Your task to perform on an android device: turn on the 24-hour format for clock Image 0: 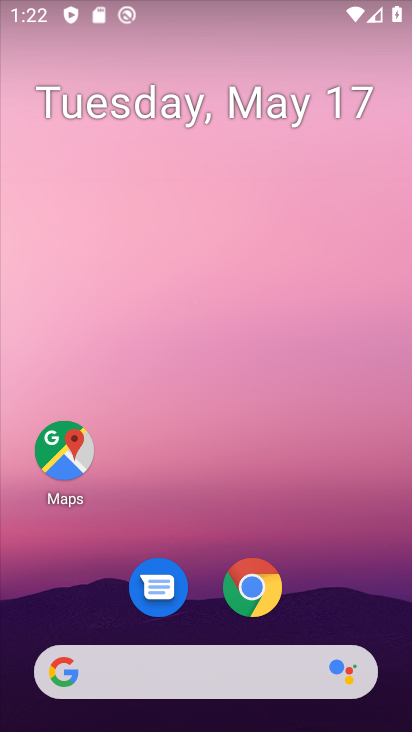
Step 0: drag from (328, 508) to (329, 222)
Your task to perform on an android device: turn on the 24-hour format for clock Image 1: 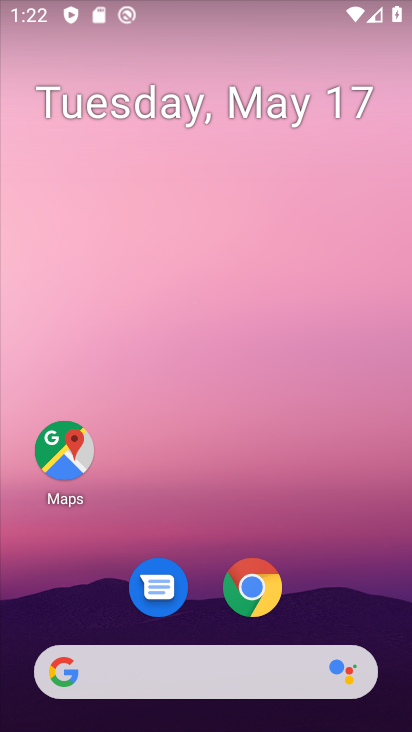
Step 1: drag from (336, 558) to (322, 204)
Your task to perform on an android device: turn on the 24-hour format for clock Image 2: 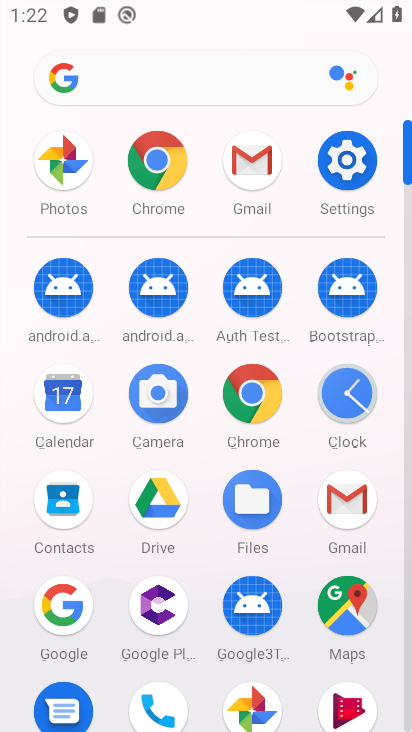
Step 2: click (348, 194)
Your task to perform on an android device: turn on the 24-hour format for clock Image 3: 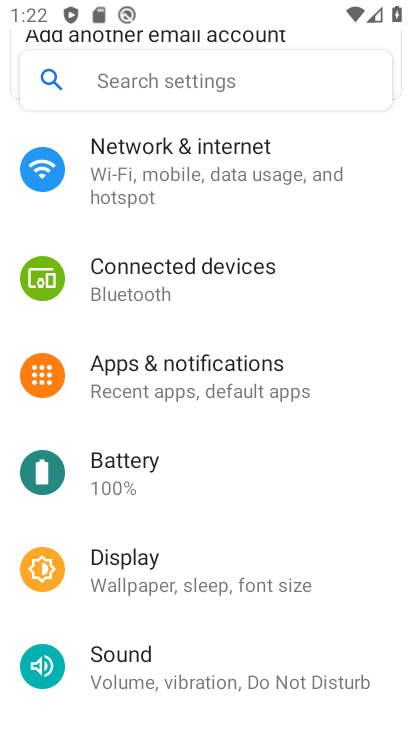
Step 3: press home button
Your task to perform on an android device: turn on the 24-hour format for clock Image 4: 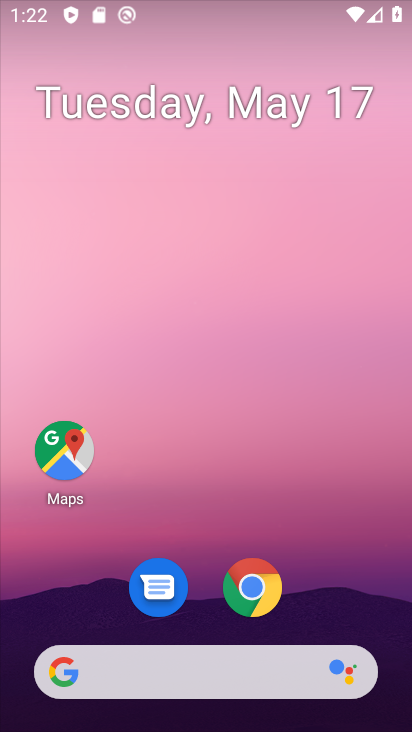
Step 4: drag from (318, 389) to (287, 130)
Your task to perform on an android device: turn on the 24-hour format for clock Image 5: 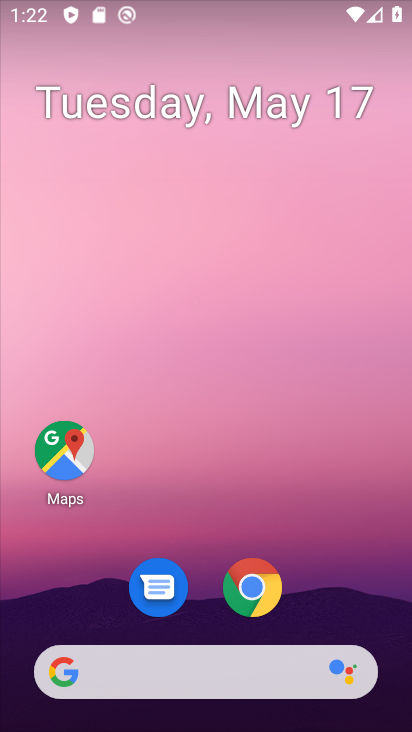
Step 5: drag from (336, 468) to (344, 43)
Your task to perform on an android device: turn on the 24-hour format for clock Image 6: 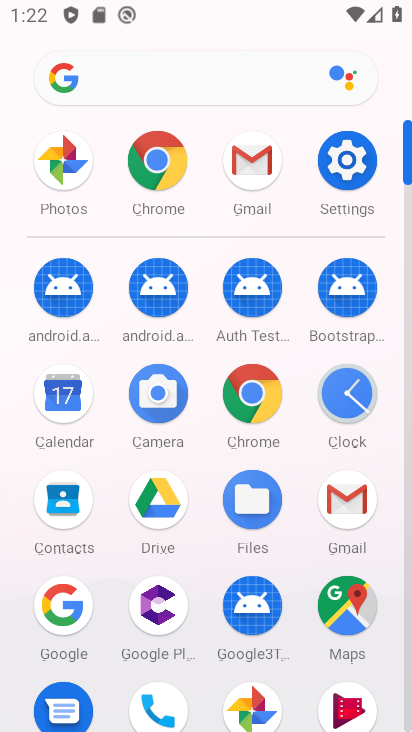
Step 6: click (369, 394)
Your task to perform on an android device: turn on the 24-hour format for clock Image 7: 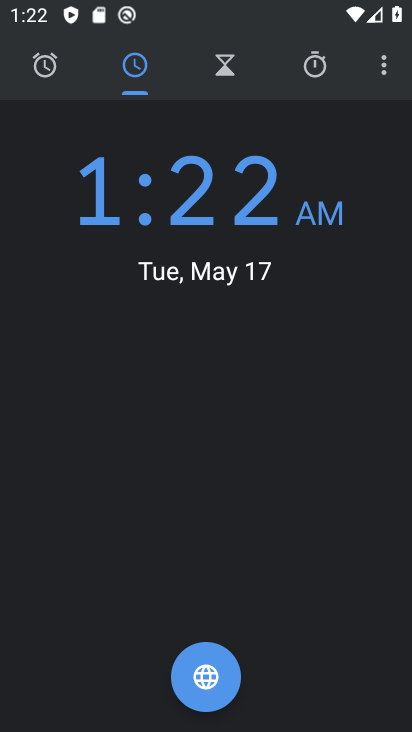
Step 7: click (382, 55)
Your task to perform on an android device: turn on the 24-hour format for clock Image 8: 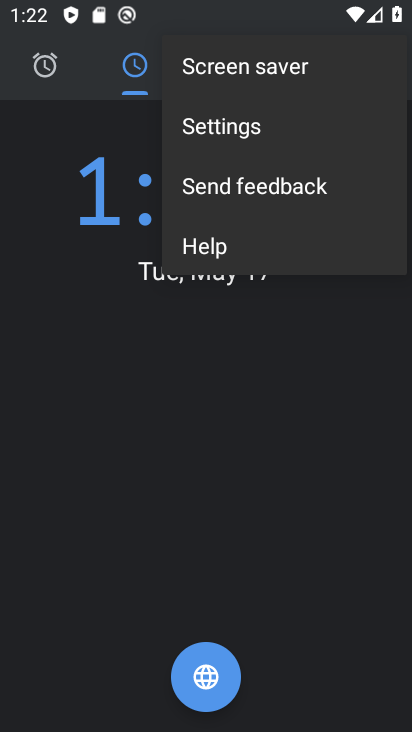
Step 8: click (261, 115)
Your task to perform on an android device: turn on the 24-hour format for clock Image 9: 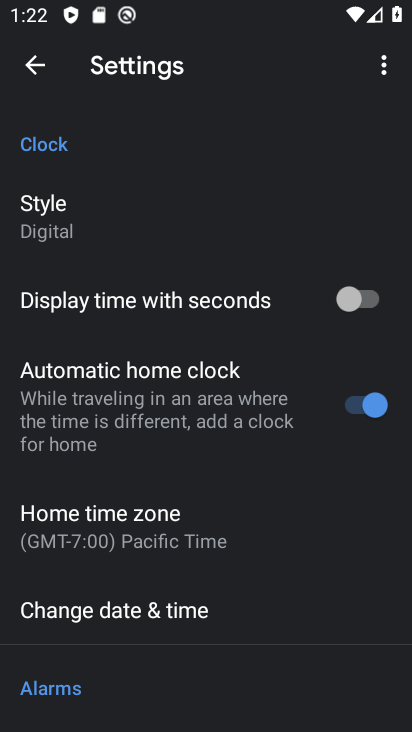
Step 9: drag from (253, 593) to (266, 265)
Your task to perform on an android device: turn on the 24-hour format for clock Image 10: 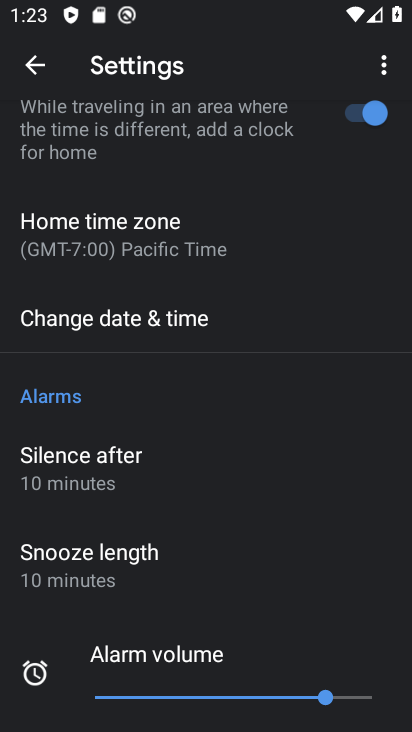
Step 10: click (223, 317)
Your task to perform on an android device: turn on the 24-hour format for clock Image 11: 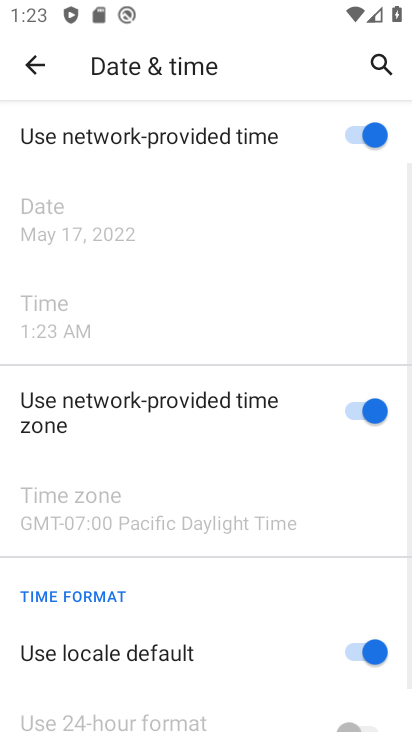
Step 11: drag from (212, 587) to (245, 322)
Your task to perform on an android device: turn on the 24-hour format for clock Image 12: 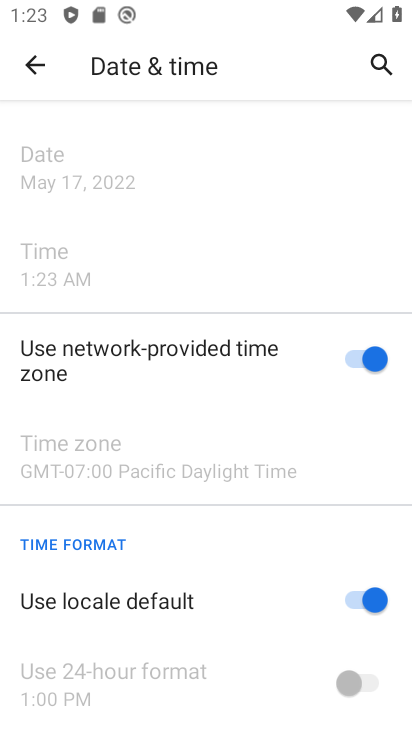
Step 12: drag from (257, 633) to (278, 303)
Your task to perform on an android device: turn on the 24-hour format for clock Image 13: 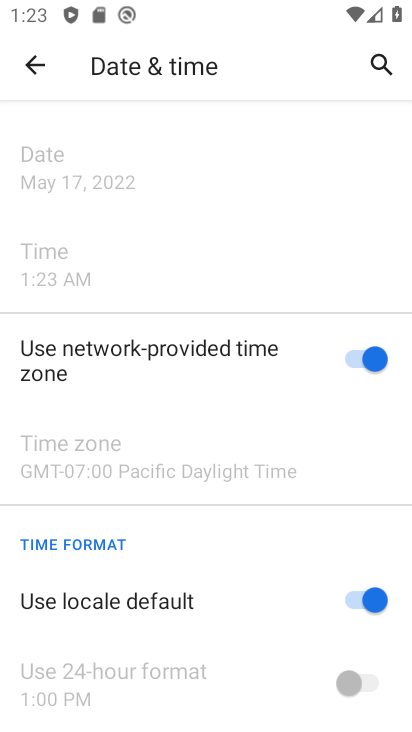
Step 13: click (342, 600)
Your task to perform on an android device: turn on the 24-hour format for clock Image 14: 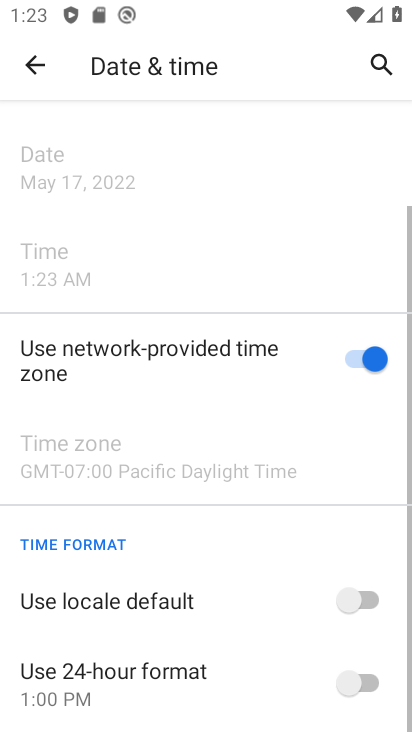
Step 14: click (374, 679)
Your task to perform on an android device: turn on the 24-hour format for clock Image 15: 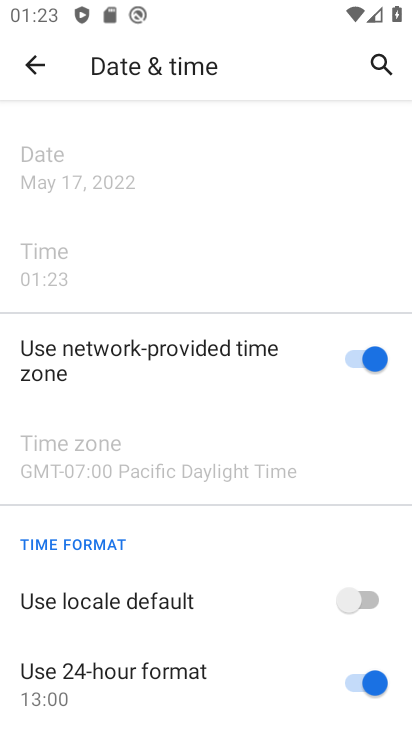
Step 15: task complete